Your task to perform on an android device: open app "Truecaller" (install if not already installed) Image 0: 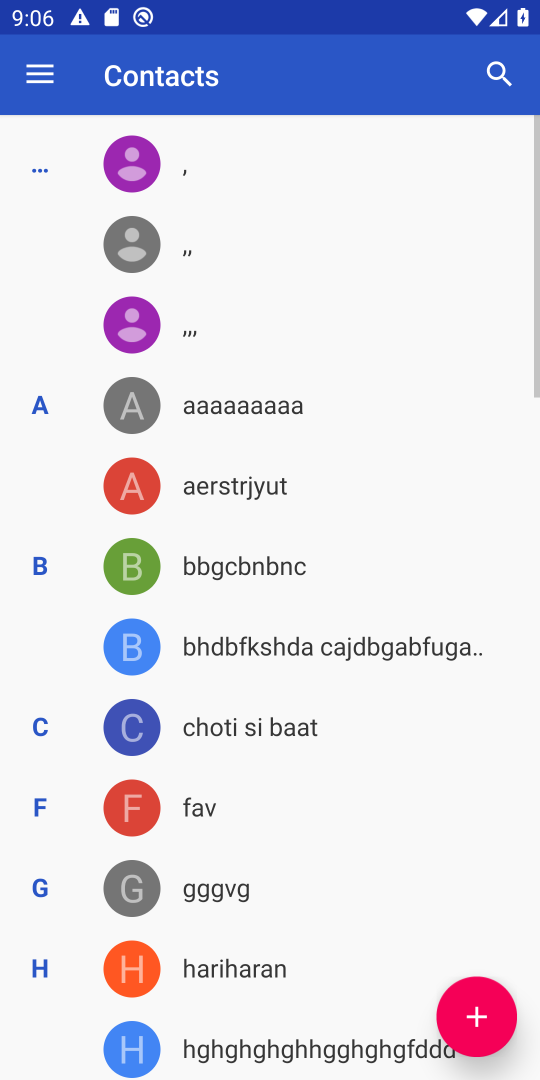
Step 0: press home button
Your task to perform on an android device: open app "Truecaller" (install if not already installed) Image 1: 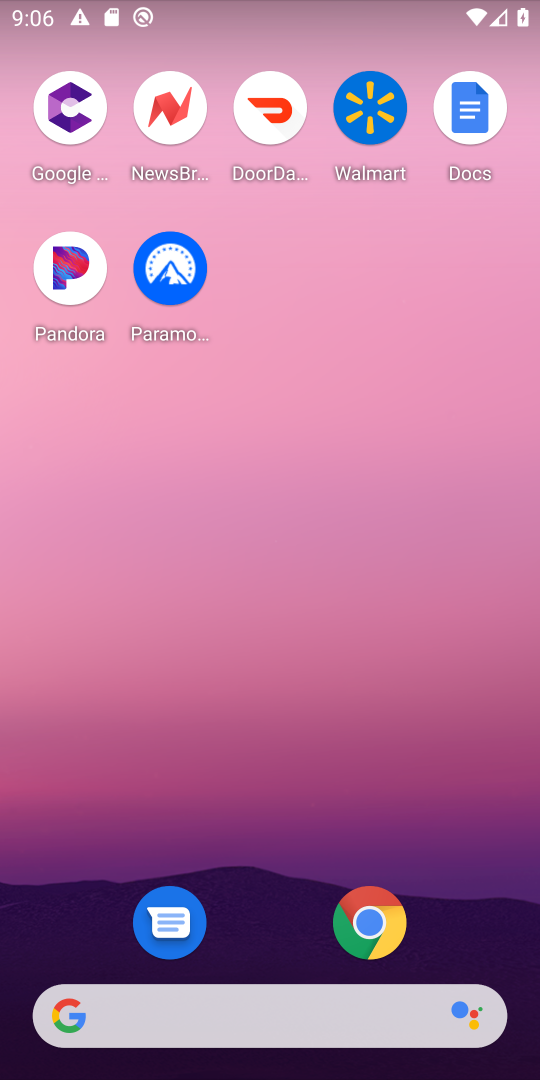
Step 1: drag from (262, 1073) to (263, 58)
Your task to perform on an android device: open app "Truecaller" (install if not already installed) Image 2: 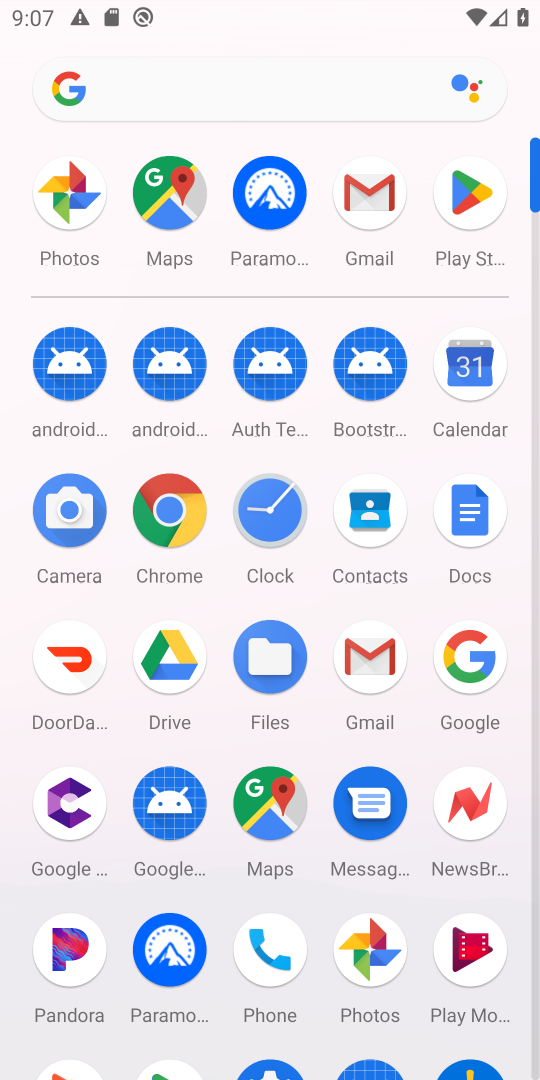
Step 2: click (465, 207)
Your task to perform on an android device: open app "Truecaller" (install if not already installed) Image 3: 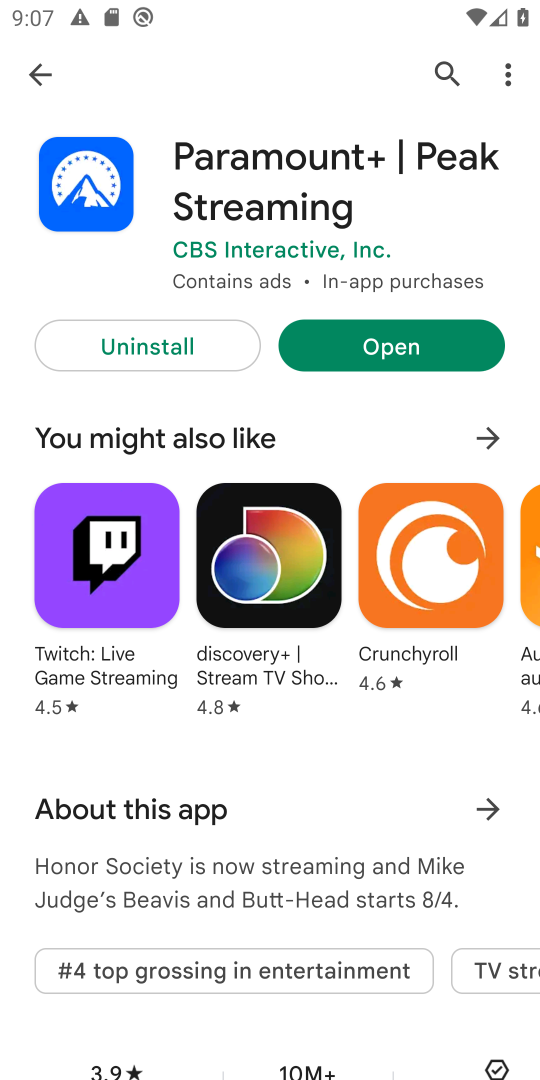
Step 3: click (449, 73)
Your task to perform on an android device: open app "Truecaller" (install if not already installed) Image 4: 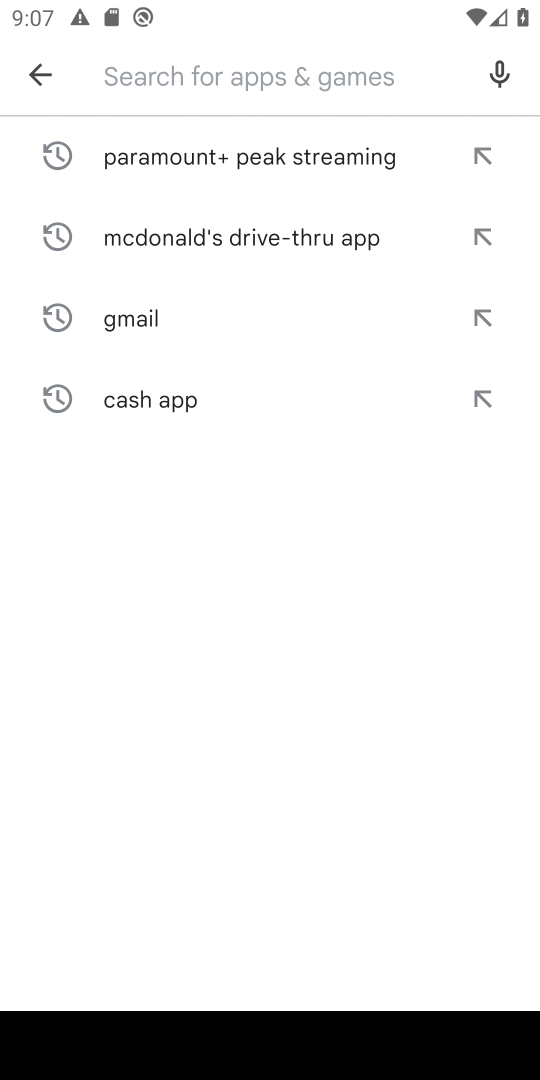
Step 4: type "Truecaller"
Your task to perform on an android device: open app "Truecaller" (install if not already installed) Image 5: 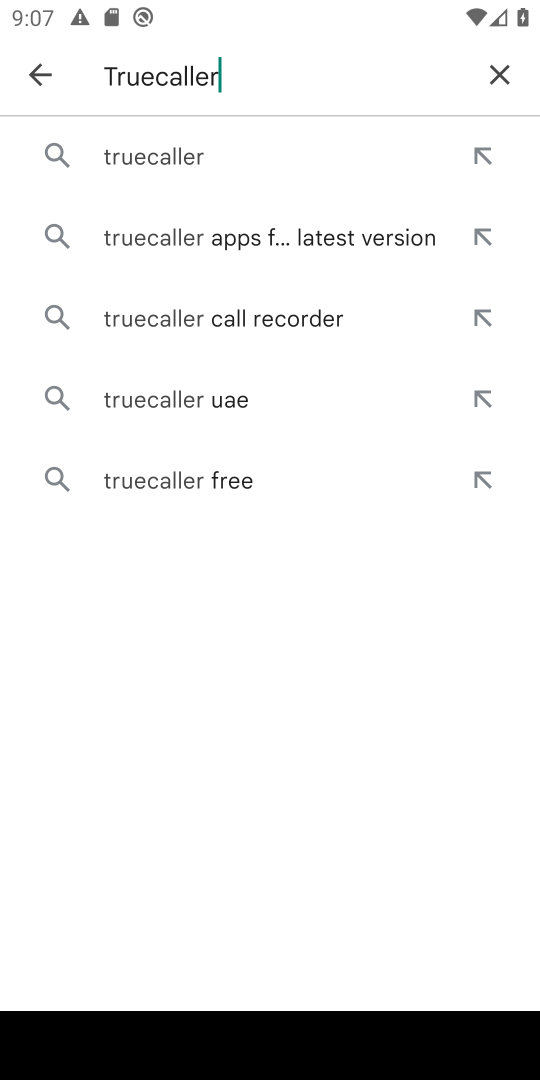
Step 5: click (151, 150)
Your task to perform on an android device: open app "Truecaller" (install if not already installed) Image 6: 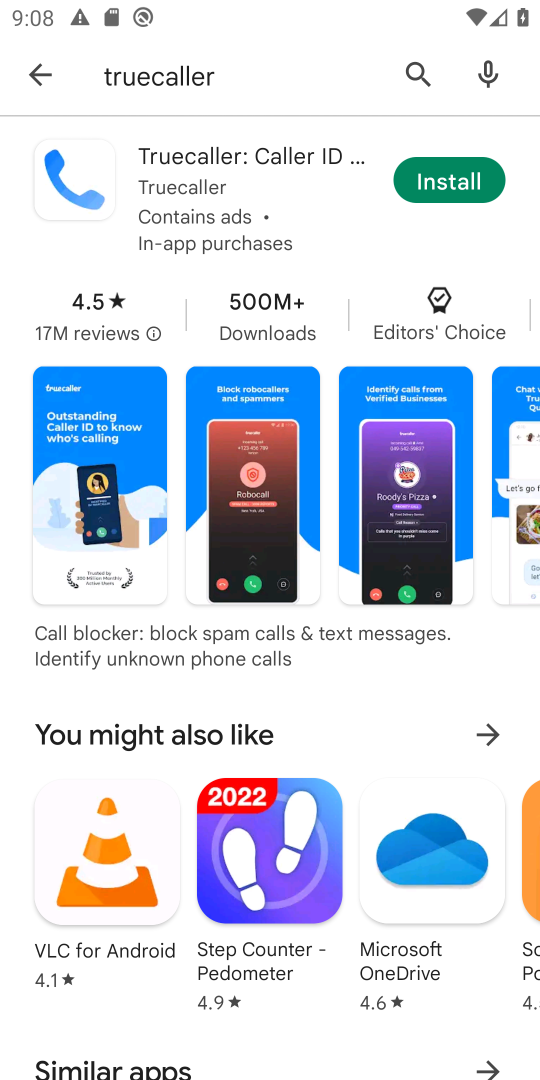
Step 6: click (464, 175)
Your task to perform on an android device: open app "Truecaller" (install if not already installed) Image 7: 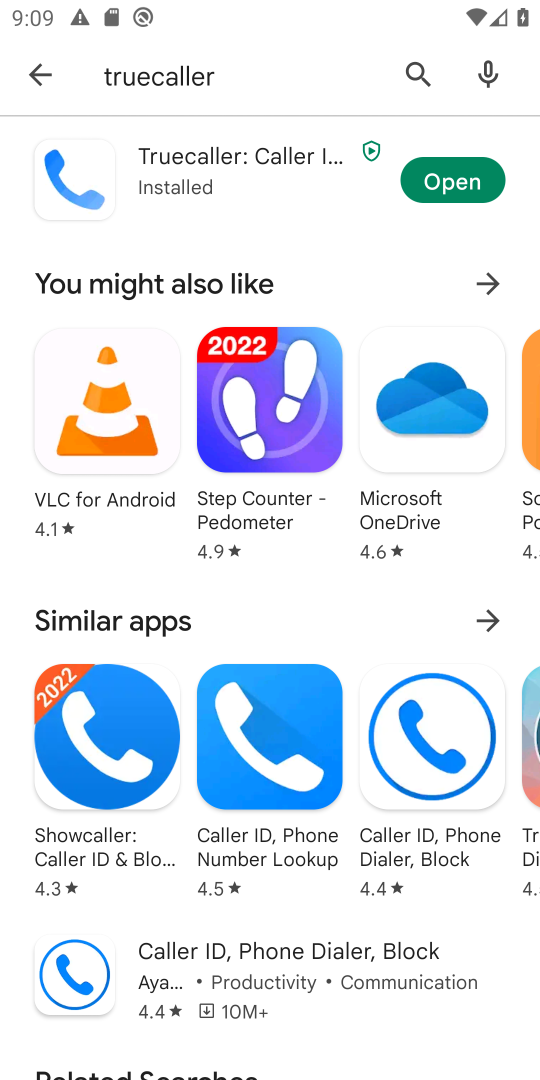
Step 7: task complete